Your task to perform on an android device: turn vacation reply on in the gmail app Image 0: 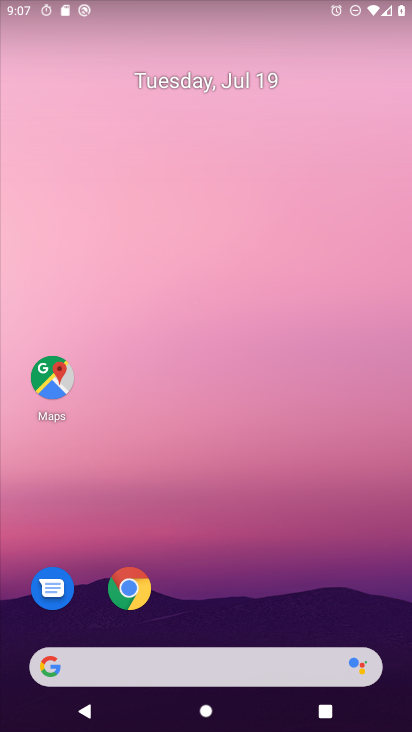
Step 0: click (245, 184)
Your task to perform on an android device: turn vacation reply on in the gmail app Image 1: 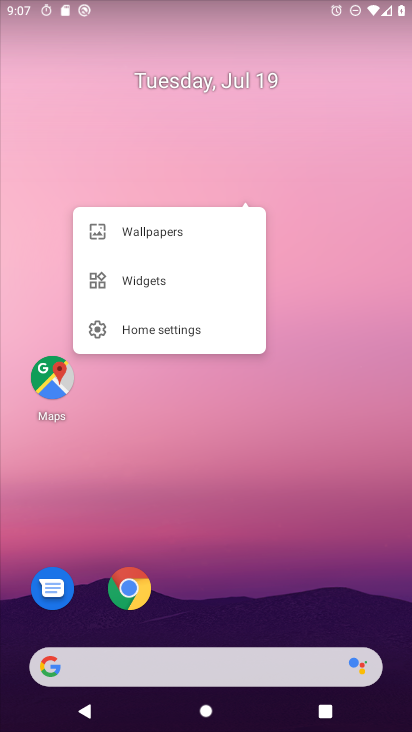
Step 1: click (250, 180)
Your task to perform on an android device: turn vacation reply on in the gmail app Image 2: 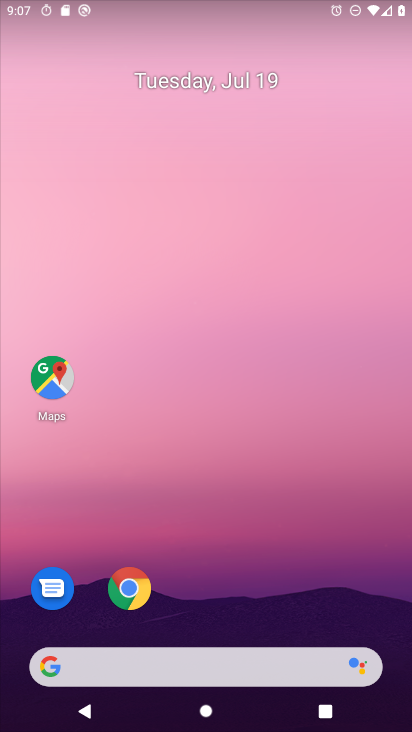
Step 2: click (270, 543)
Your task to perform on an android device: turn vacation reply on in the gmail app Image 3: 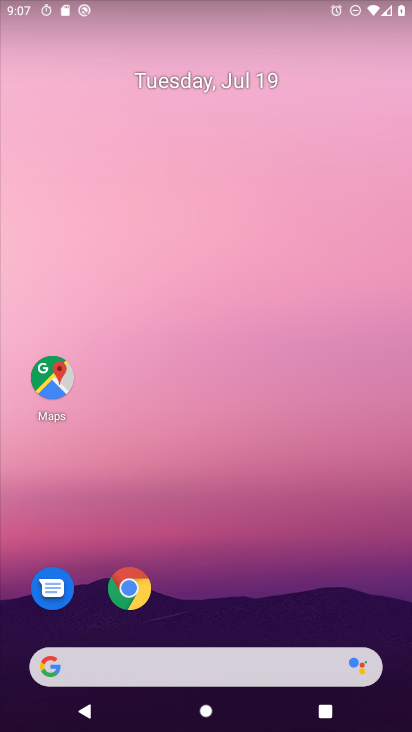
Step 3: drag from (250, 632) to (234, 158)
Your task to perform on an android device: turn vacation reply on in the gmail app Image 4: 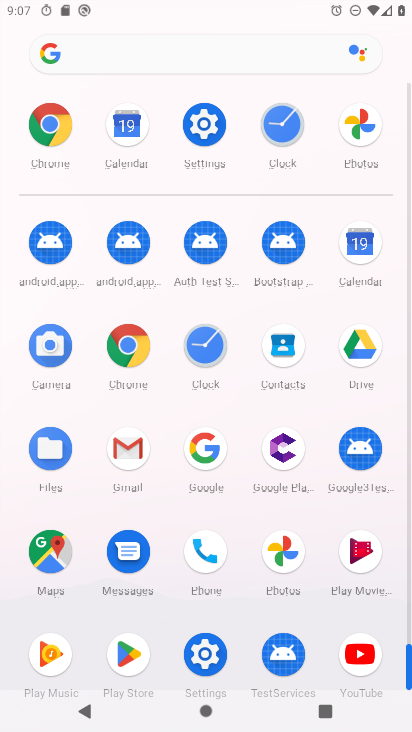
Step 4: click (129, 464)
Your task to perform on an android device: turn vacation reply on in the gmail app Image 5: 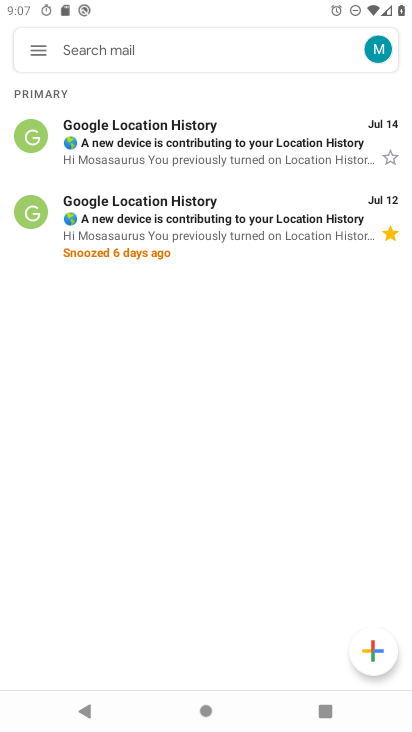
Step 5: click (45, 49)
Your task to perform on an android device: turn vacation reply on in the gmail app Image 6: 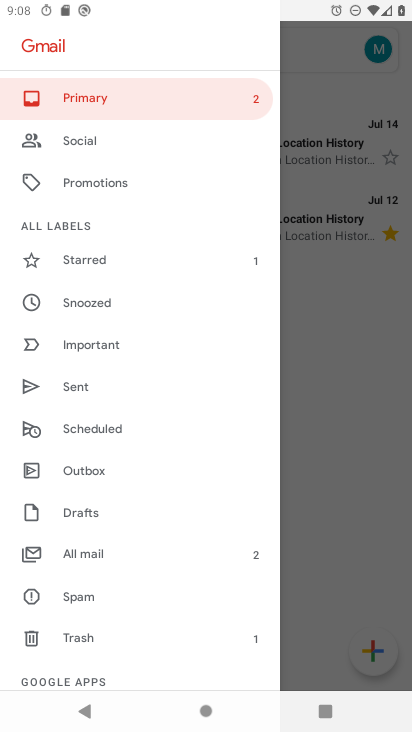
Step 6: drag from (170, 358) to (178, 265)
Your task to perform on an android device: turn vacation reply on in the gmail app Image 7: 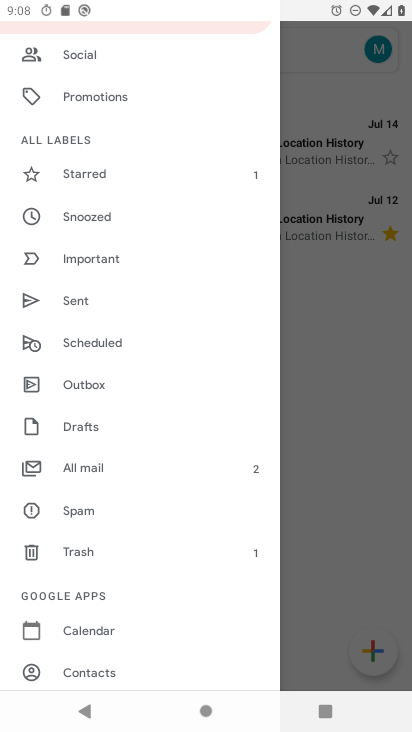
Step 7: drag from (140, 633) to (160, 345)
Your task to perform on an android device: turn vacation reply on in the gmail app Image 8: 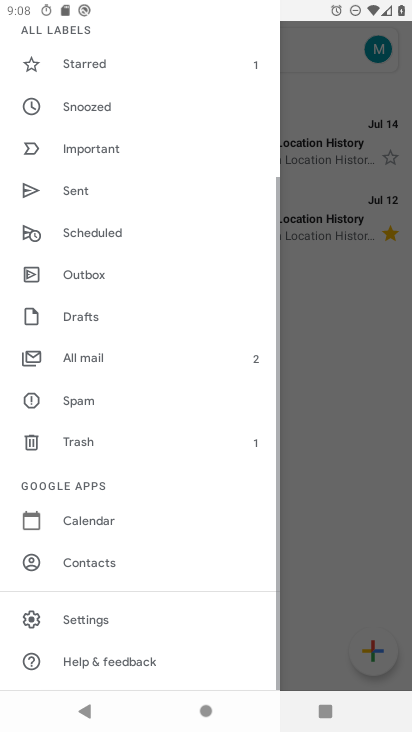
Step 8: click (123, 620)
Your task to perform on an android device: turn vacation reply on in the gmail app Image 9: 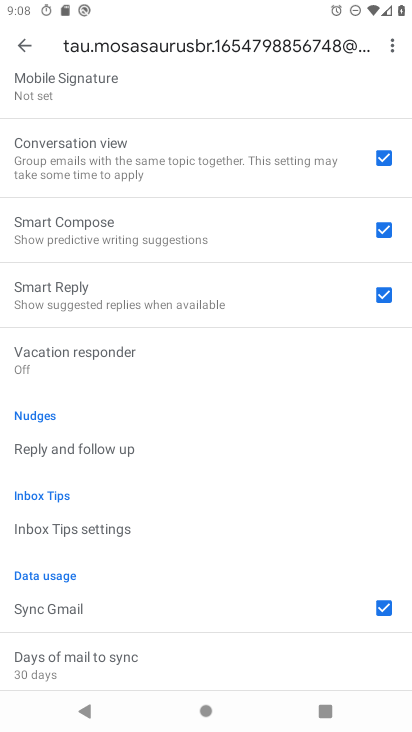
Step 9: click (209, 354)
Your task to perform on an android device: turn vacation reply on in the gmail app Image 10: 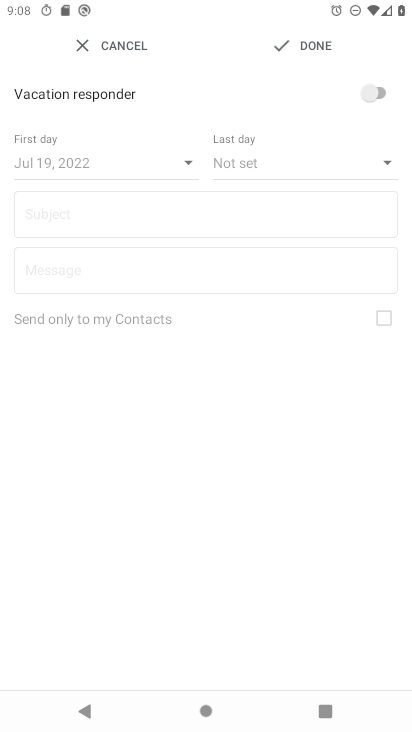
Step 10: click (108, 364)
Your task to perform on an android device: turn vacation reply on in the gmail app Image 11: 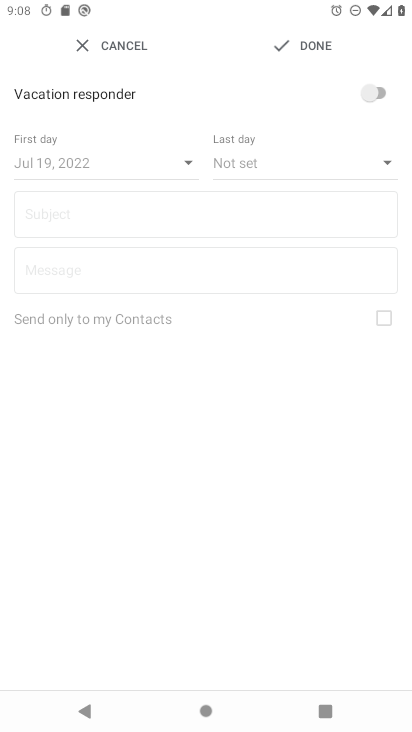
Step 11: click (377, 94)
Your task to perform on an android device: turn vacation reply on in the gmail app Image 12: 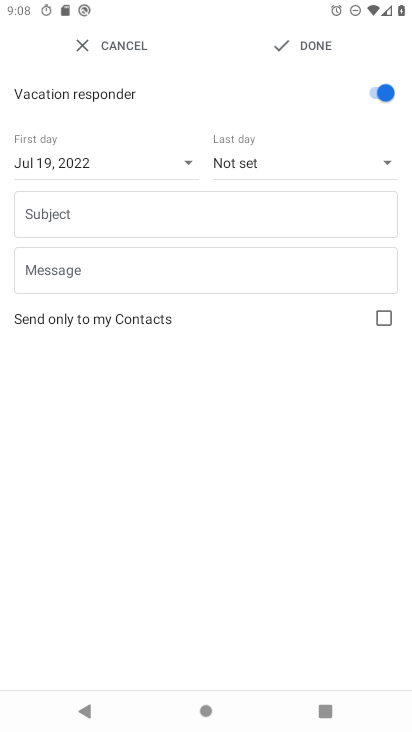
Step 12: click (377, 94)
Your task to perform on an android device: turn vacation reply on in the gmail app Image 13: 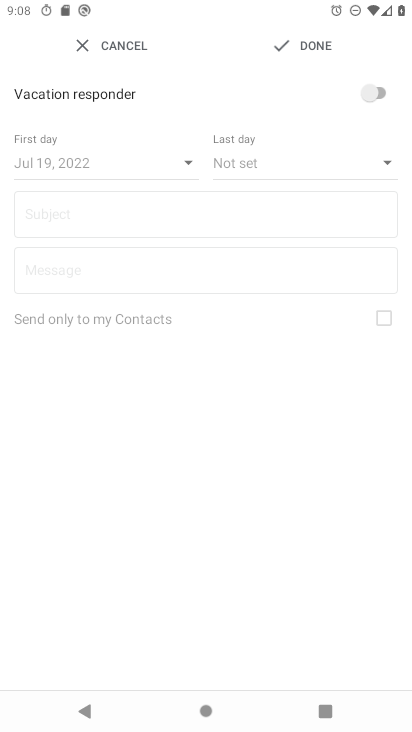
Step 13: click (366, 87)
Your task to perform on an android device: turn vacation reply on in the gmail app Image 14: 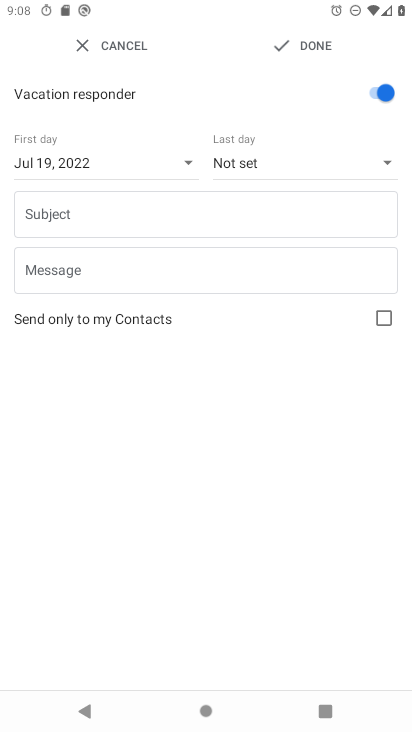
Step 14: click (322, 39)
Your task to perform on an android device: turn vacation reply on in the gmail app Image 15: 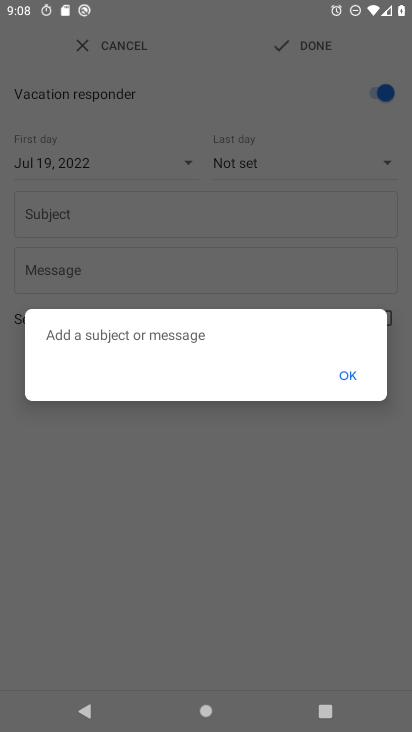
Step 15: click (348, 374)
Your task to perform on an android device: turn vacation reply on in the gmail app Image 16: 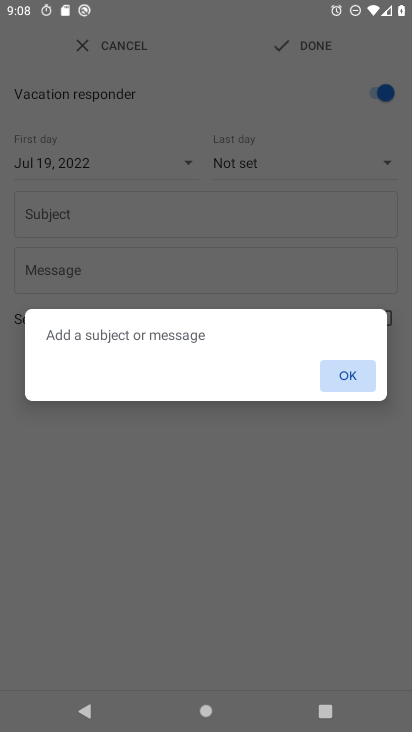
Step 16: task complete